Your task to perform on an android device: Open eBay Image 0: 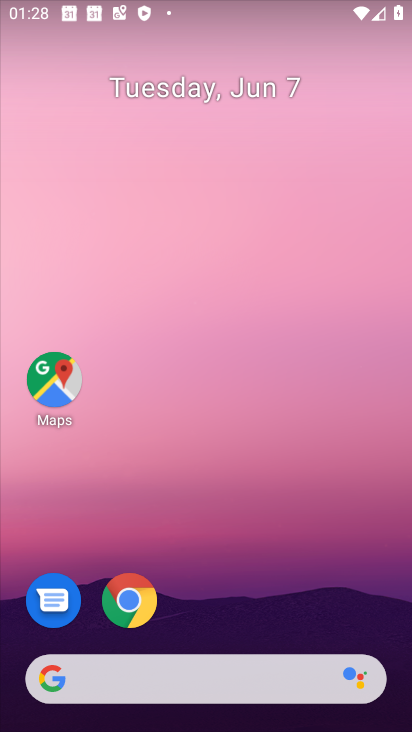
Step 0: drag from (224, 729) to (212, 79)
Your task to perform on an android device: Open eBay Image 1: 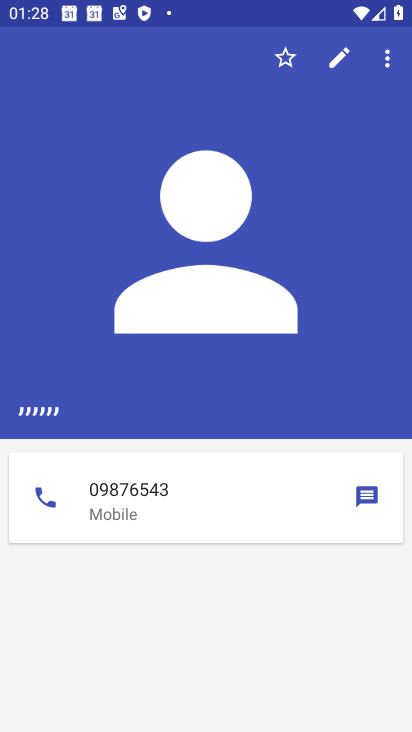
Step 1: press home button
Your task to perform on an android device: Open eBay Image 2: 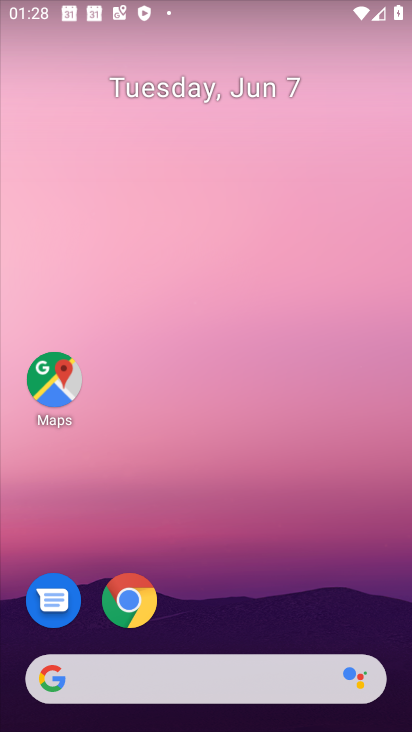
Step 2: click (137, 604)
Your task to perform on an android device: Open eBay Image 3: 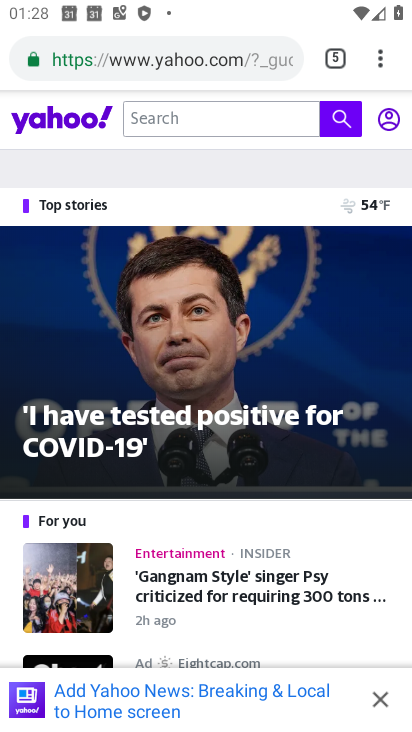
Step 3: click (379, 59)
Your task to perform on an android device: Open eBay Image 4: 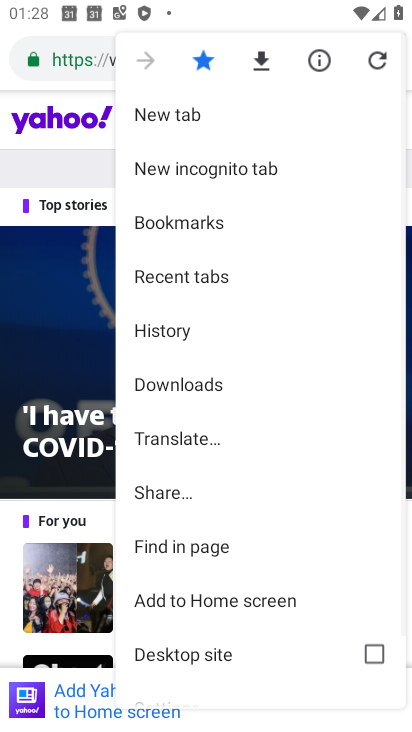
Step 4: click (174, 115)
Your task to perform on an android device: Open eBay Image 5: 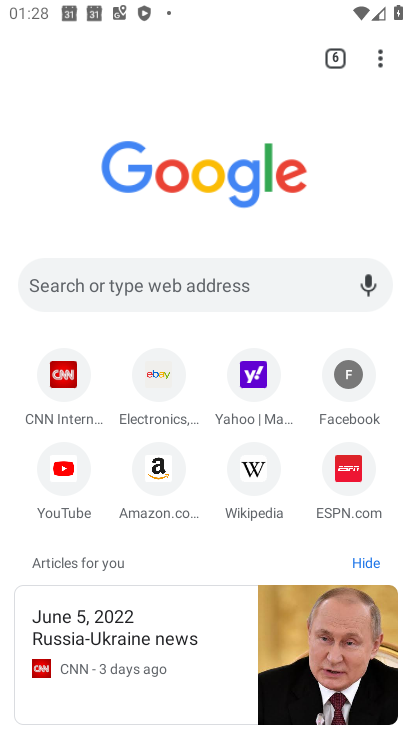
Step 5: click (206, 283)
Your task to perform on an android device: Open eBay Image 6: 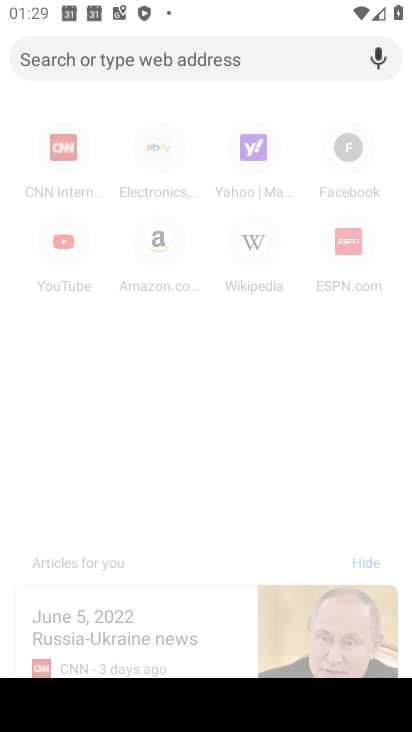
Step 6: type "eBay"
Your task to perform on an android device: Open eBay Image 7: 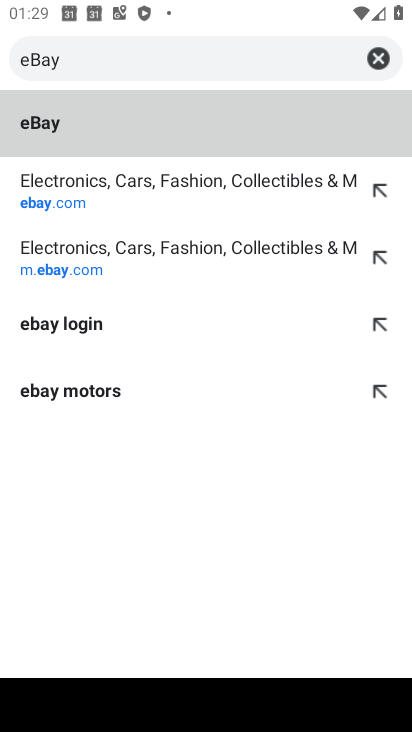
Step 7: click (87, 111)
Your task to perform on an android device: Open eBay Image 8: 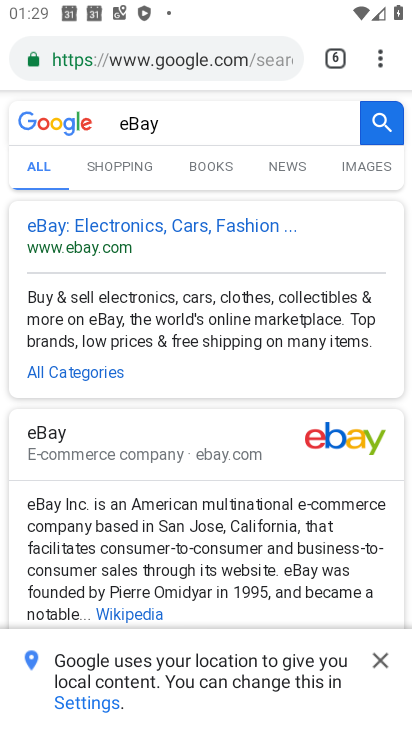
Step 8: click (116, 220)
Your task to perform on an android device: Open eBay Image 9: 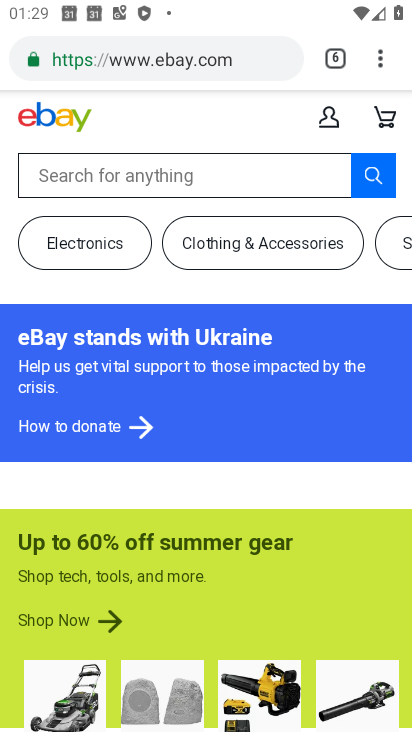
Step 9: task complete